Your task to perform on an android device: Open the web browser Image 0: 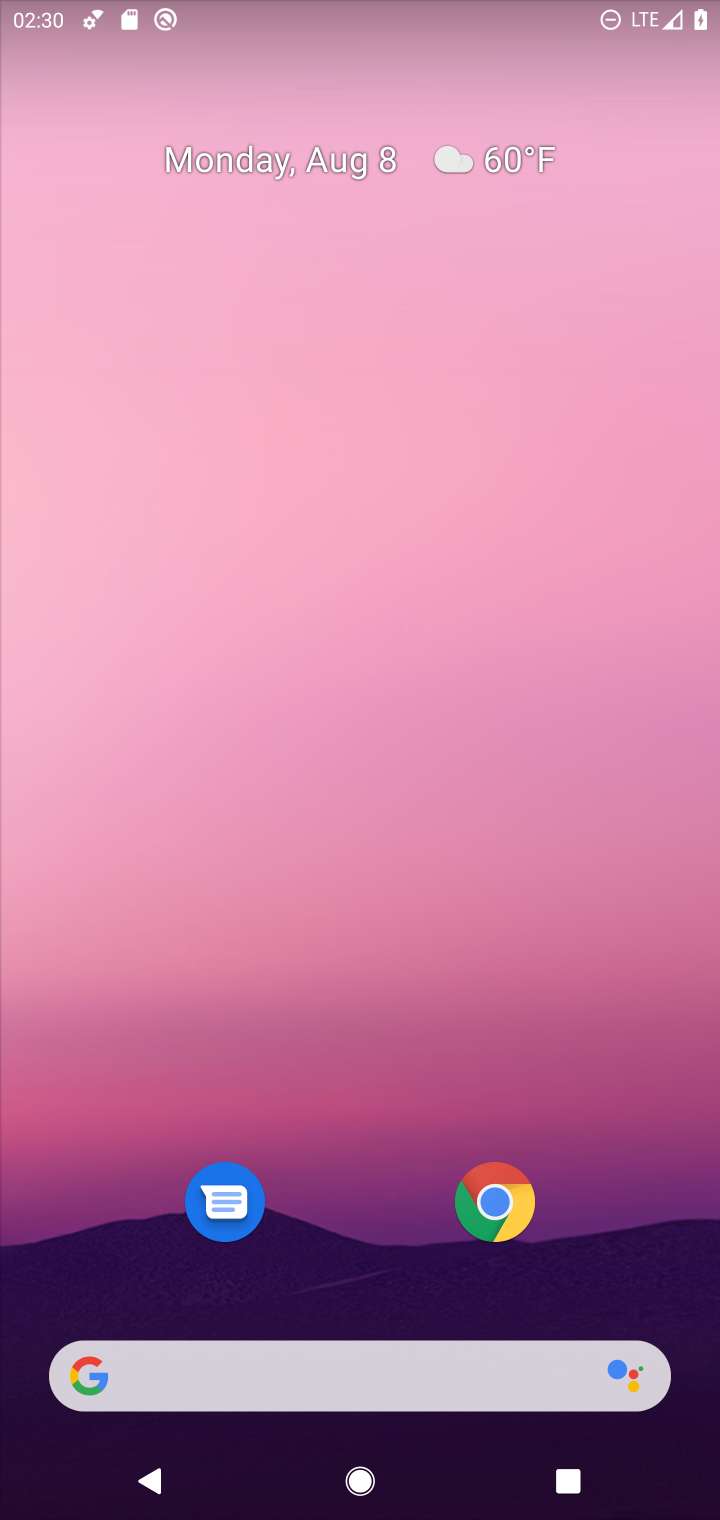
Step 0: press home button
Your task to perform on an android device: Open the web browser Image 1: 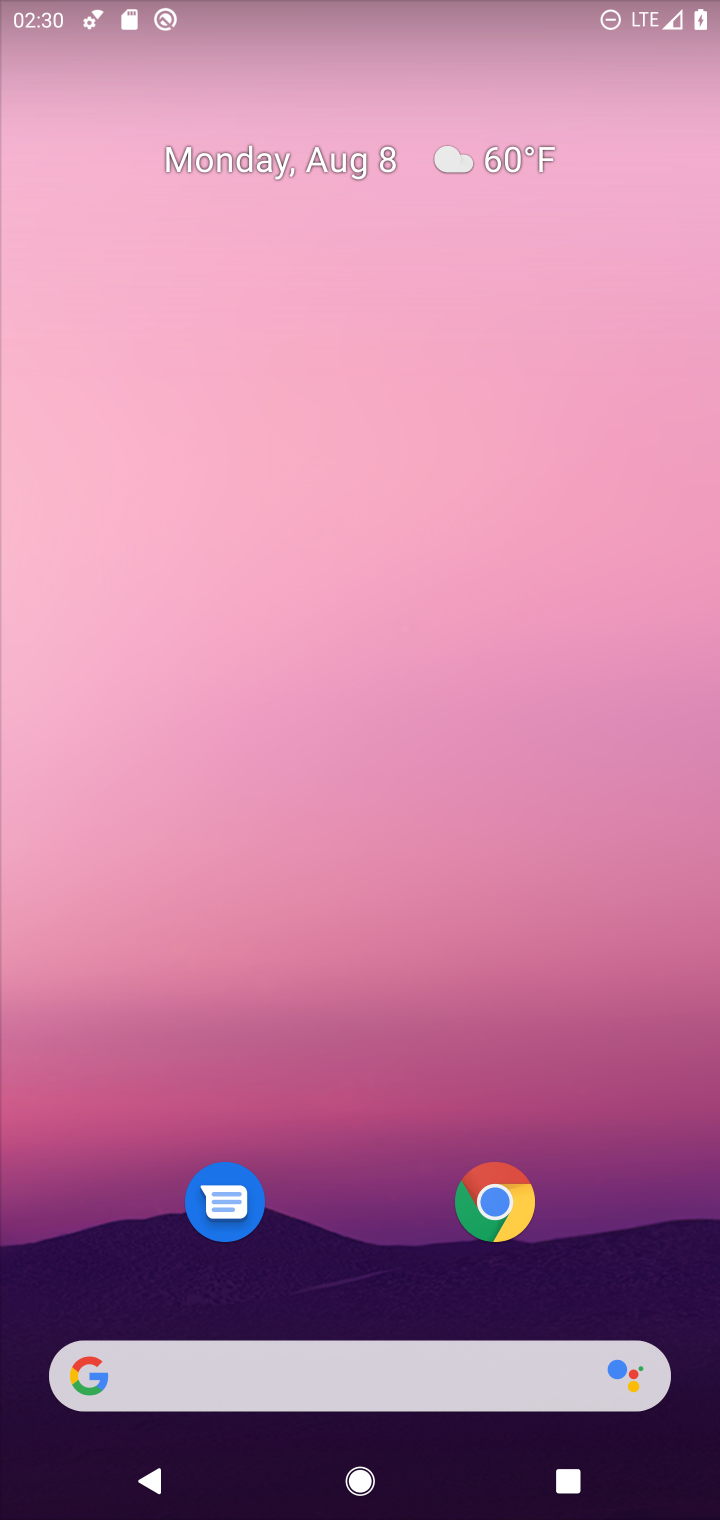
Step 1: drag from (622, 1273) to (568, 325)
Your task to perform on an android device: Open the web browser Image 2: 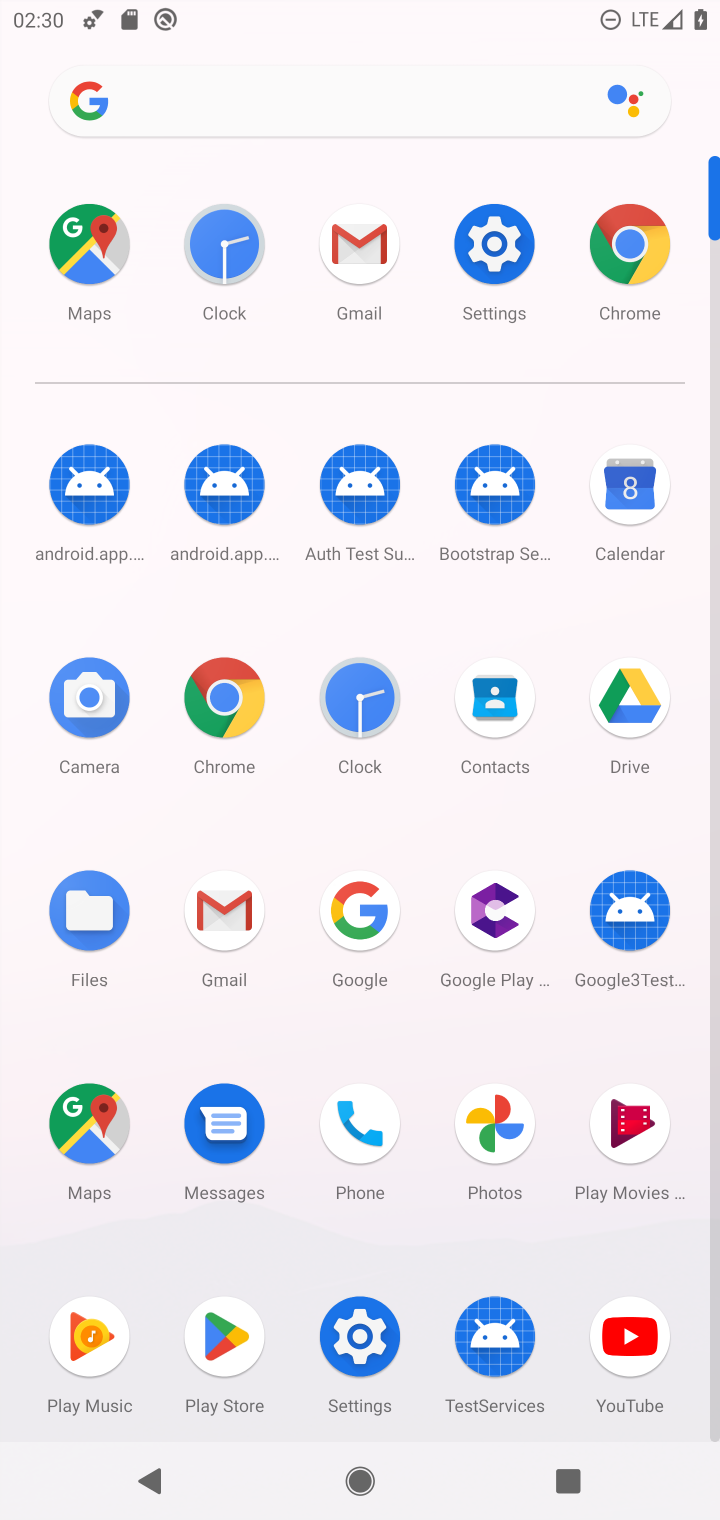
Step 2: click (214, 699)
Your task to perform on an android device: Open the web browser Image 3: 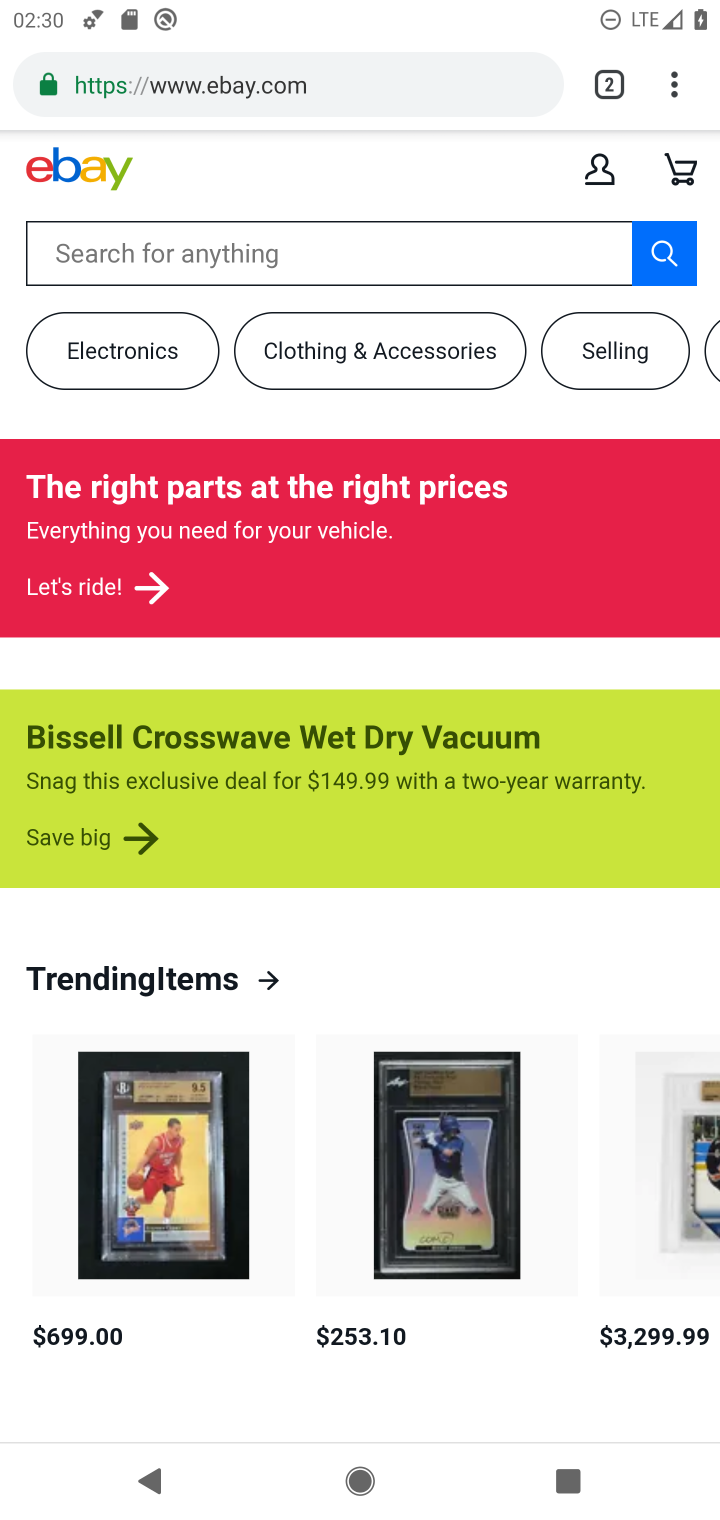
Step 3: task complete